Your task to perform on an android device: change timer sound Image 0: 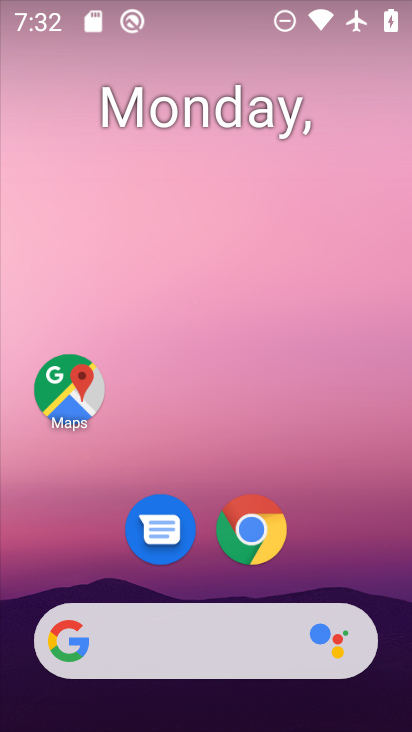
Step 0: drag from (343, 500) to (253, 148)
Your task to perform on an android device: change timer sound Image 1: 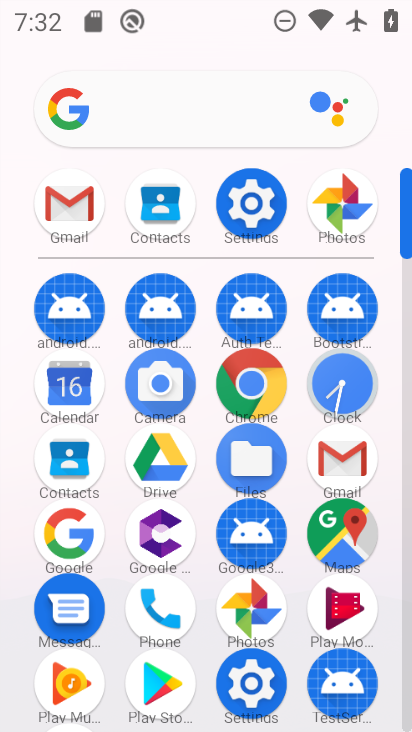
Step 1: click (361, 380)
Your task to perform on an android device: change timer sound Image 2: 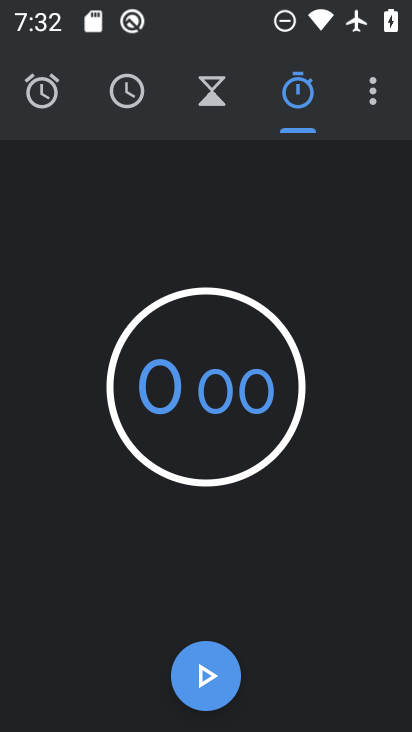
Step 2: click (373, 86)
Your task to perform on an android device: change timer sound Image 3: 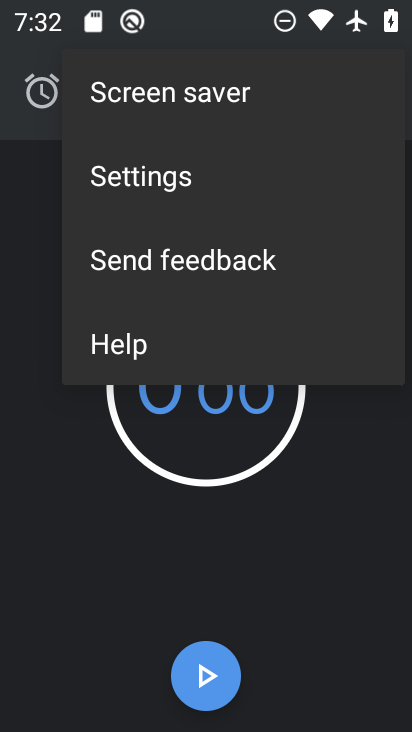
Step 3: click (140, 157)
Your task to perform on an android device: change timer sound Image 4: 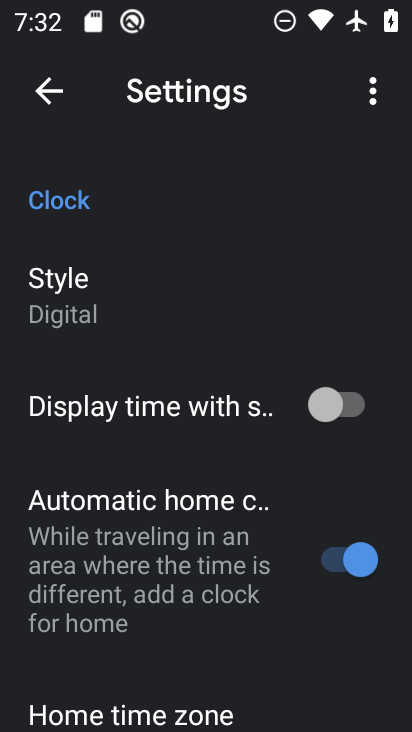
Step 4: drag from (282, 644) to (230, 231)
Your task to perform on an android device: change timer sound Image 5: 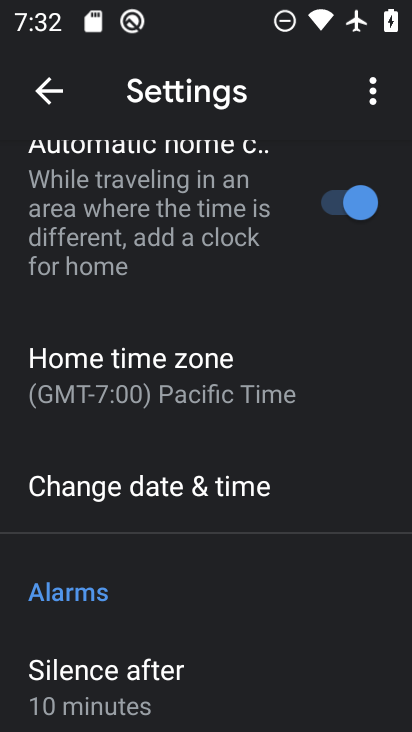
Step 5: drag from (205, 582) to (177, 199)
Your task to perform on an android device: change timer sound Image 6: 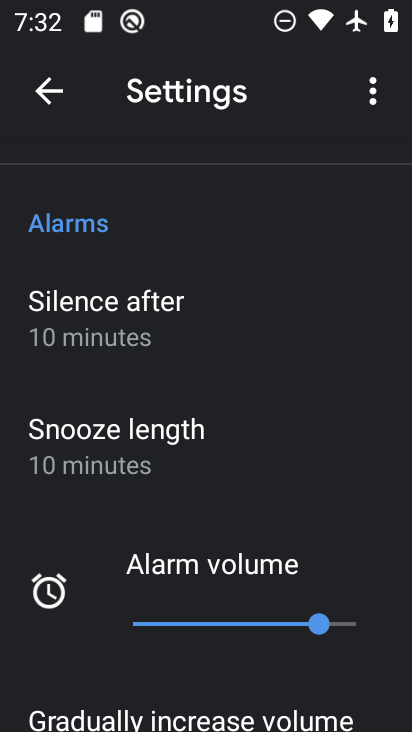
Step 6: drag from (195, 497) to (162, 268)
Your task to perform on an android device: change timer sound Image 7: 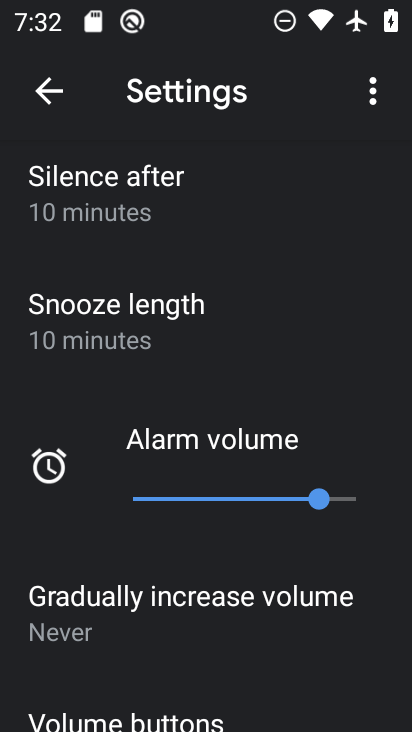
Step 7: drag from (194, 621) to (173, 176)
Your task to perform on an android device: change timer sound Image 8: 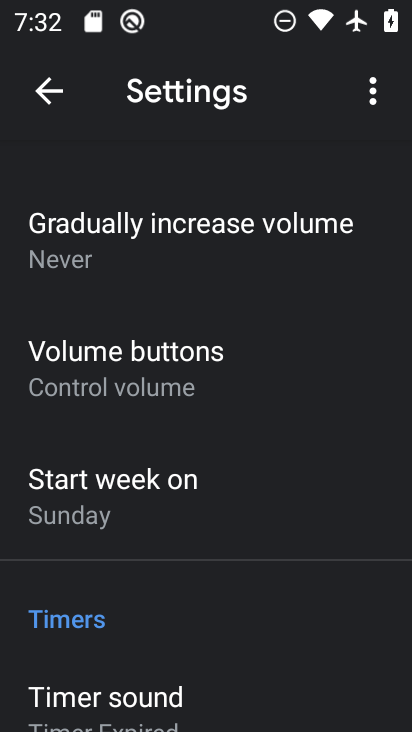
Step 8: drag from (194, 608) to (183, 325)
Your task to perform on an android device: change timer sound Image 9: 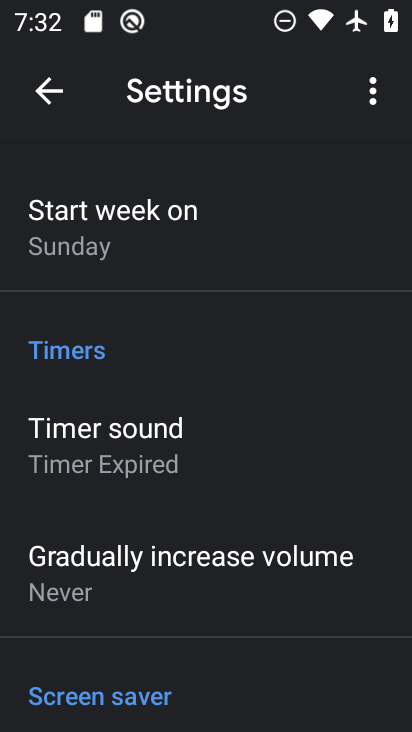
Step 9: click (139, 419)
Your task to perform on an android device: change timer sound Image 10: 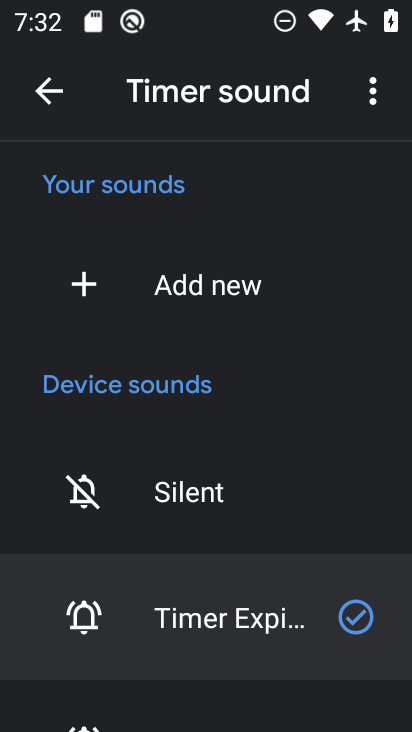
Step 10: drag from (207, 508) to (181, 295)
Your task to perform on an android device: change timer sound Image 11: 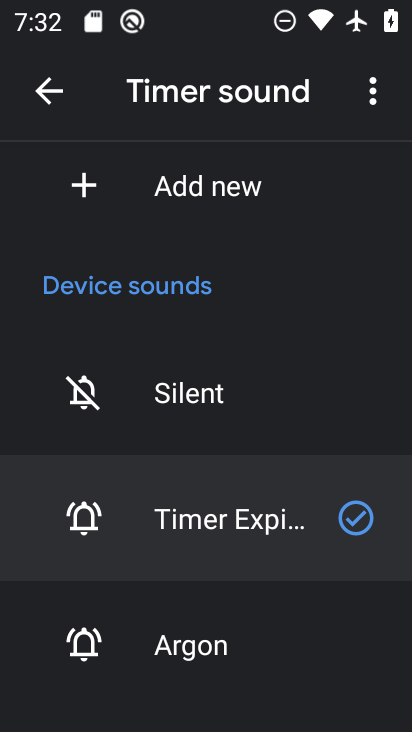
Step 11: click (186, 632)
Your task to perform on an android device: change timer sound Image 12: 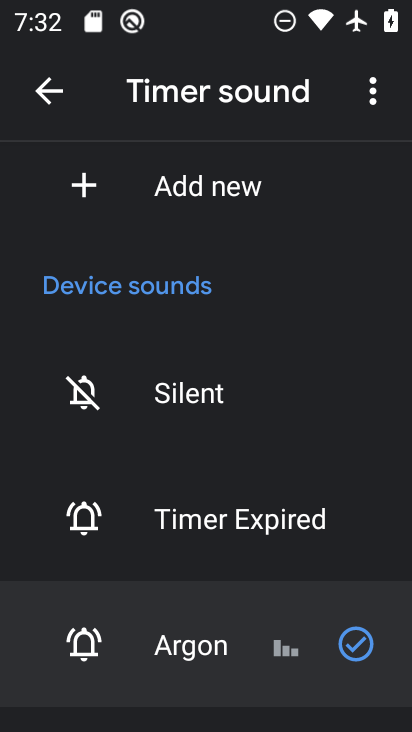
Step 12: task complete